Your task to perform on an android device: turn off priority inbox in the gmail app Image 0: 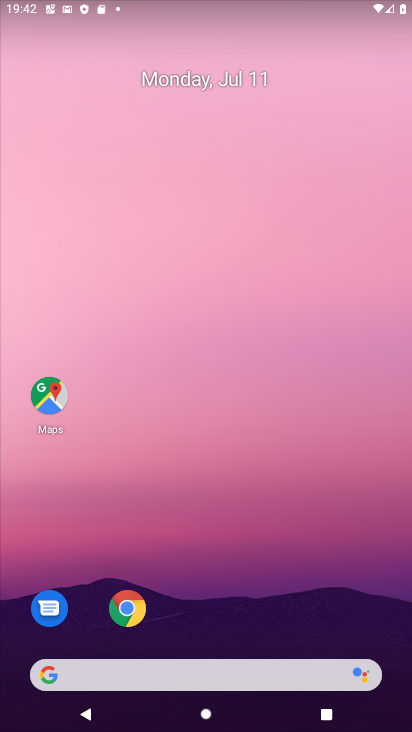
Step 0: drag from (319, 606) to (247, 189)
Your task to perform on an android device: turn off priority inbox in the gmail app Image 1: 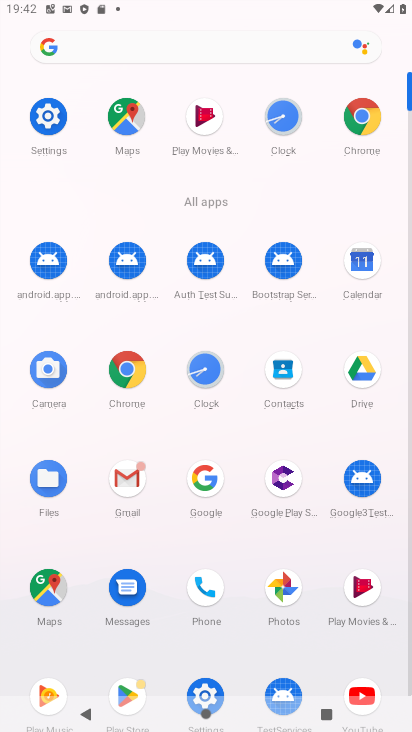
Step 1: click (139, 490)
Your task to perform on an android device: turn off priority inbox in the gmail app Image 2: 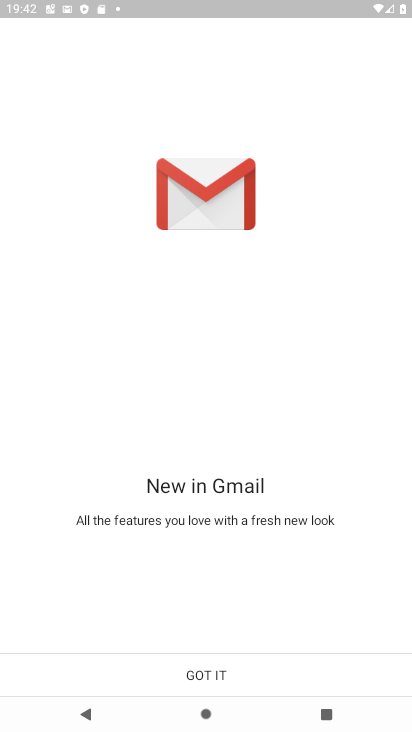
Step 2: click (202, 660)
Your task to perform on an android device: turn off priority inbox in the gmail app Image 3: 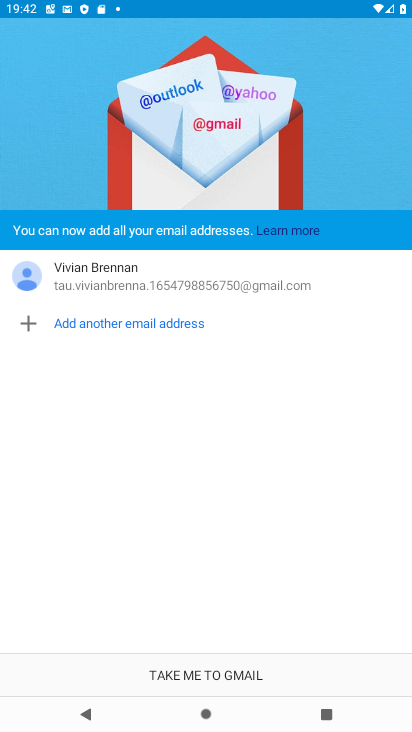
Step 3: click (194, 665)
Your task to perform on an android device: turn off priority inbox in the gmail app Image 4: 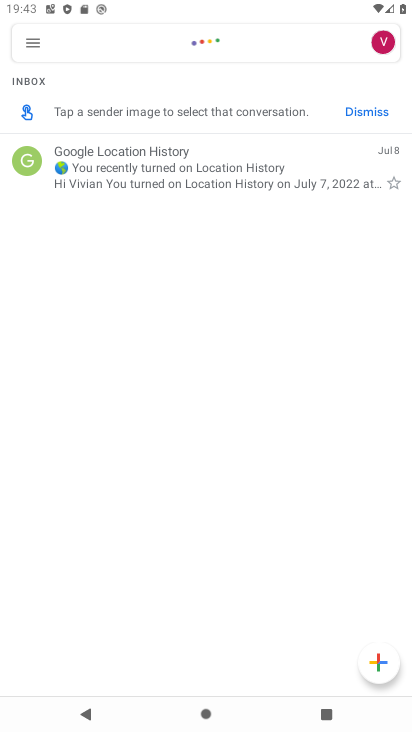
Step 4: click (20, 51)
Your task to perform on an android device: turn off priority inbox in the gmail app Image 5: 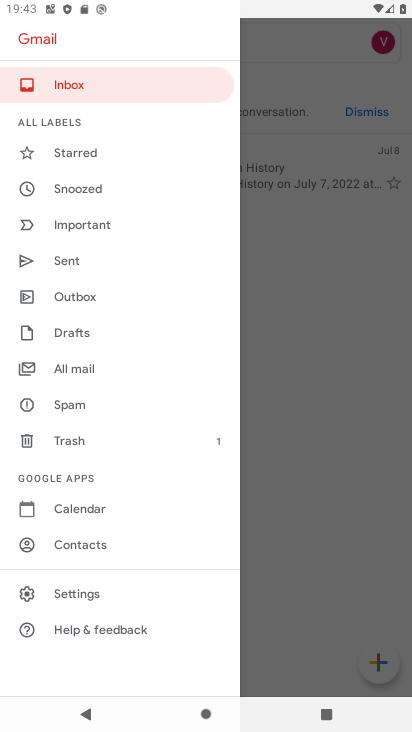
Step 5: click (113, 598)
Your task to perform on an android device: turn off priority inbox in the gmail app Image 6: 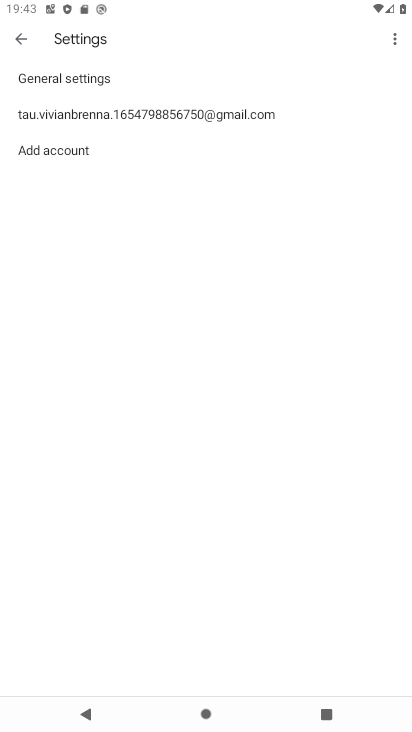
Step 6: click (181, 114)
Your task to perform on an android device: turn off priority inbox in the gmail app Image 7: 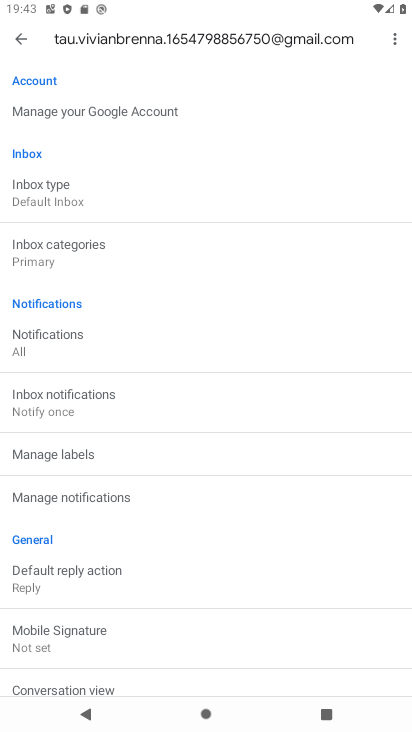
Step 7: click (88, 255)
Your task to perform on an android device: turn off priority inbox in the gmail app Image 8: 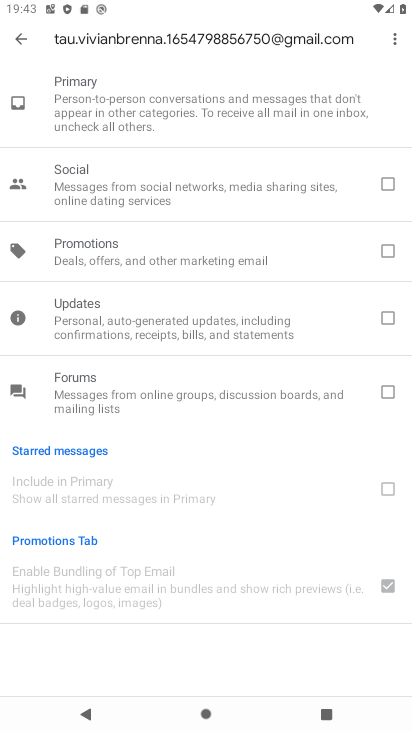
Step 8: click (30, 35)
Your task to perform on an android device: turn off priority inbox in the gmail app Image 9: 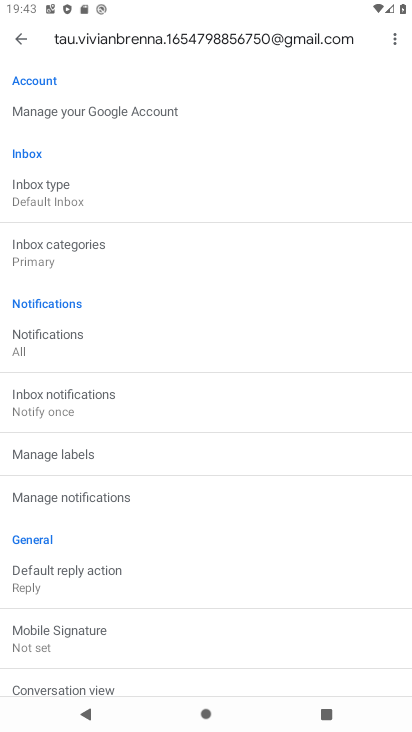
Step 9: click (59, 183)
Your task to perform on an android device: turn off priority inbox in the gmail app Image 10: 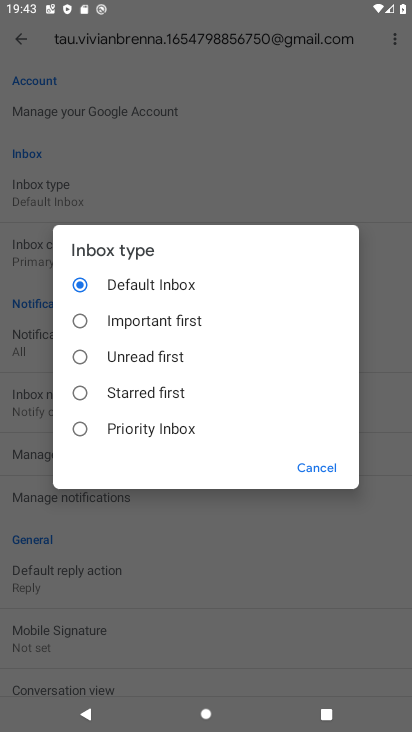
Step 10: click (184, 451)
Your task to perform on an android device: turn off priority inbox in the gmail app Image 11: 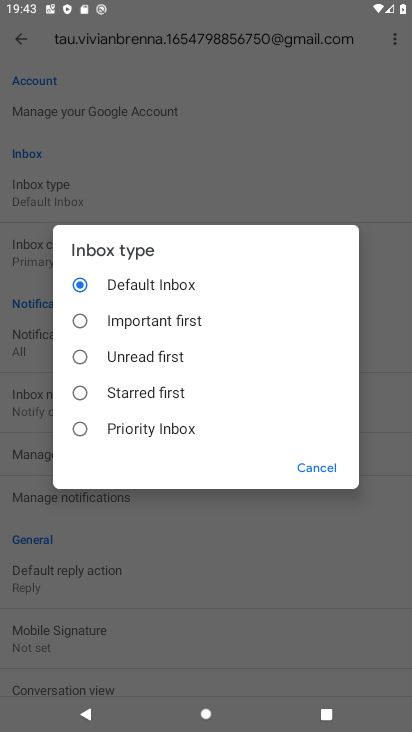
Step 11: click (169, 439)
Your task to perform on an android device: turn off priority inbox in the gmail app Image 12: 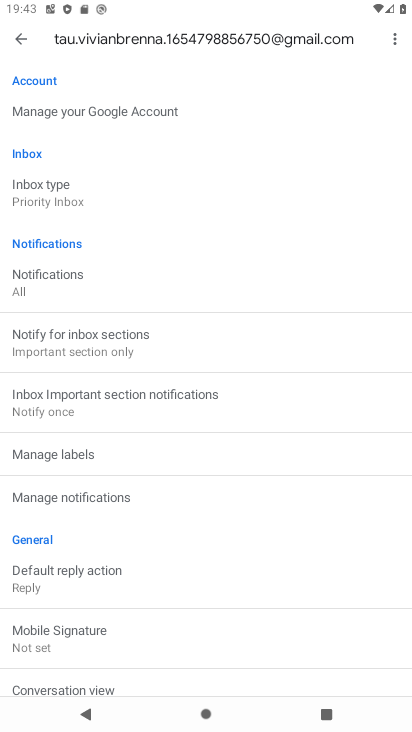
Step 12: task complete